Your task to perform on an android device: snooze an email in the gmail app Image 0: 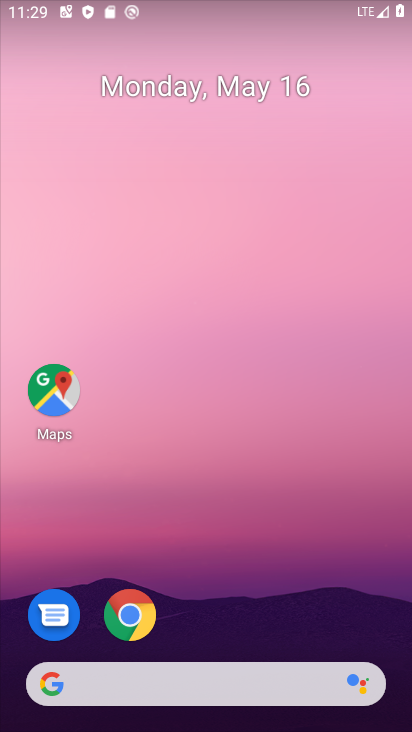
Step 0: drag from (222, 596) to (222, 176)
Your task to perform on an android device: snooze an email in the gmail app Image 1: 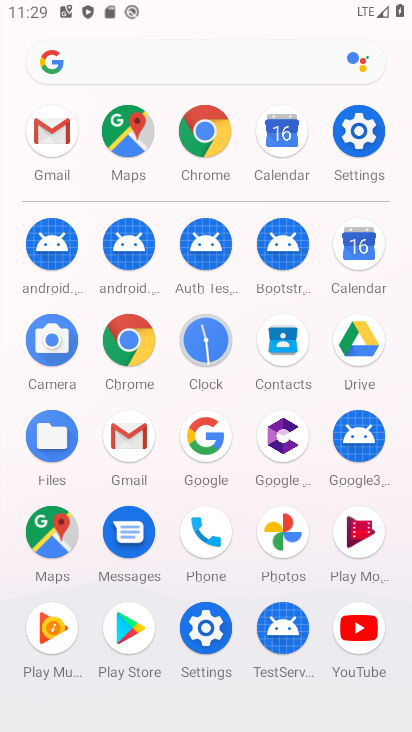
Step 1: click (132, 446)
Your task to perform on an android device: snooze an email in the gmail app Image 2: 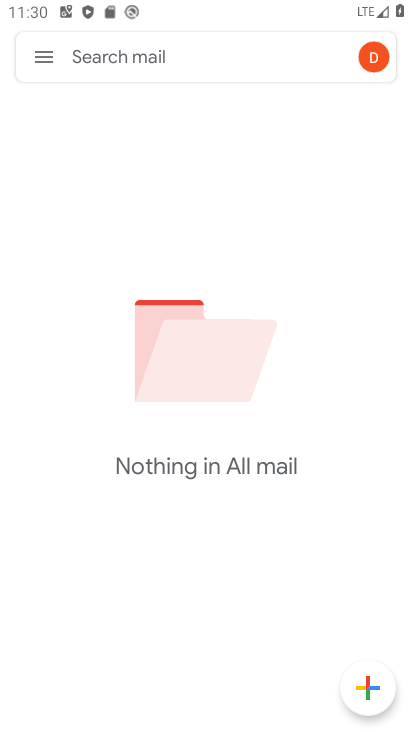
Step 2: task complete